Your task to perform on an android device: toggle notifications settings in the gmail app Image 0: 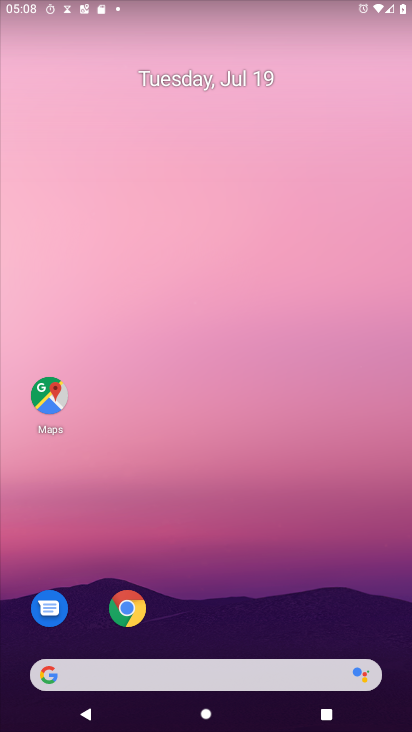
Step 0: drag from (198, 675) to (243, 112)
Your task to perform on an android device: toggle notifications settings in the gmail app Image 1: 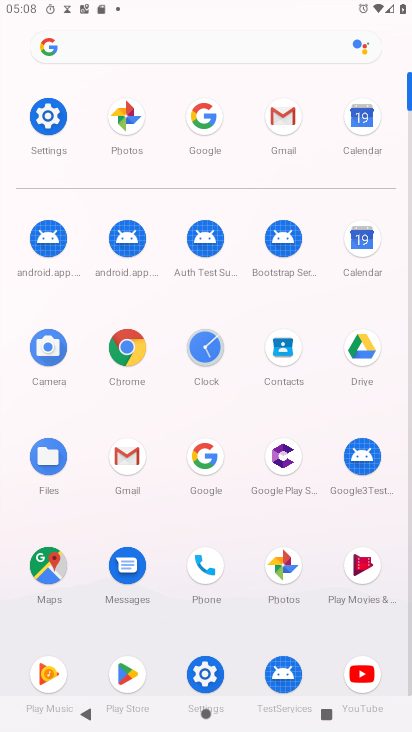
Step 1: click (281, 114)
Your task to perform on an android device: toggle notifications settings in the gmail app Image 2: 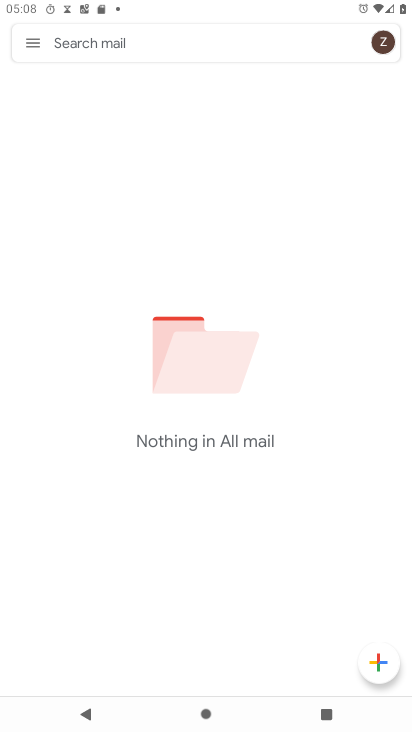
Step 2: click (31, 43)
Your task to perform on an android device: toggle notifications settings in the gmail app Image 3: 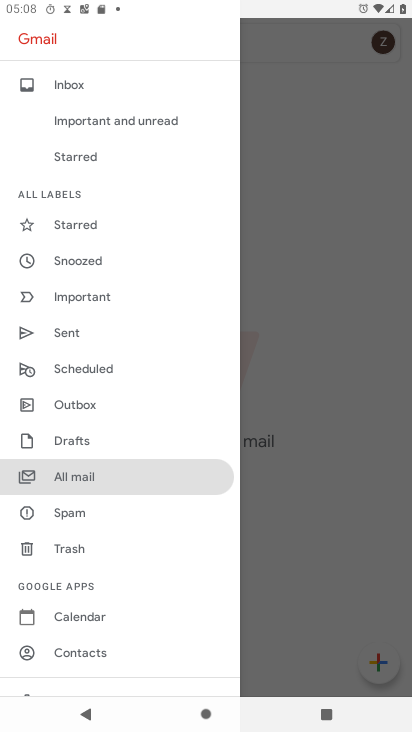
Step 3: drag from (100, 555) to (83, 365)
Your task to perform on an android device: toggle notifications settings in the gmail app Image 4: 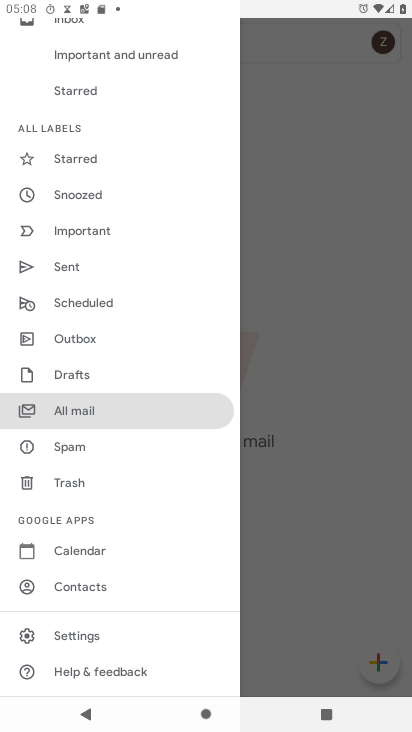
Step 4: click (89, 634)
Your task to perform on an android device: toggle notifications settings in the gmail app Image 5: 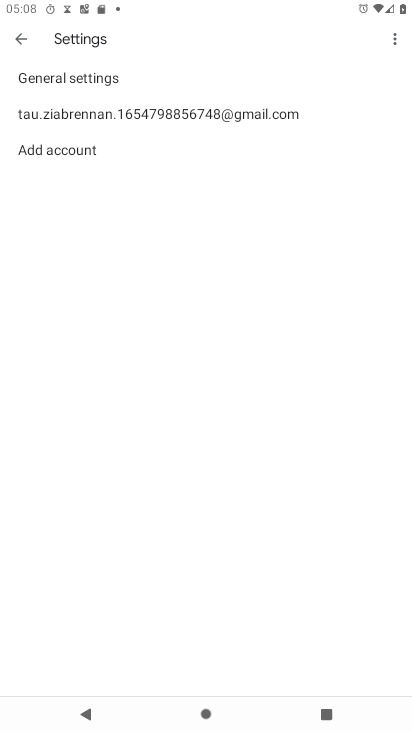
Step 5: click (254, 114)
Your task to perform on an android device: toggle notifications settings in the gmail app Image 6: 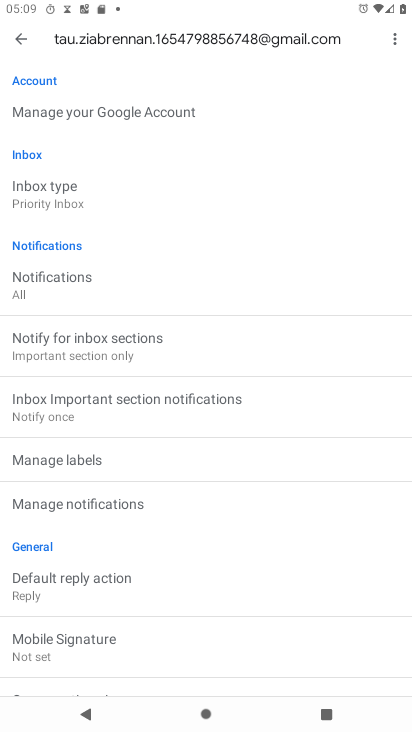
Step 6: click (70, 505)
Your task to perform on an android device: toggle notifications settings in the gmail app Image 7: 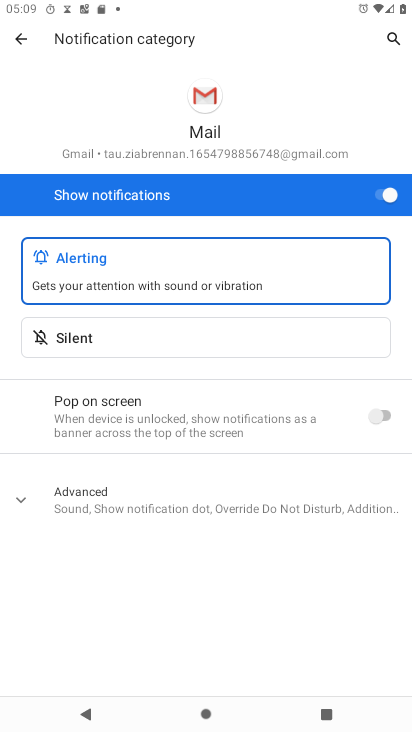
Step 7: click (387, 193)
Your task to perform on an android device: toggle notifications settings in the gmail app Image 8: 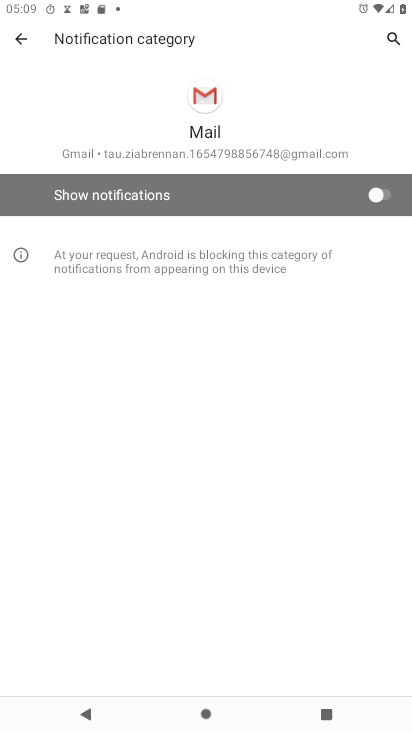
Step 8: task complete